Your task to perform on an android device: Go to wifi settings Image 0: 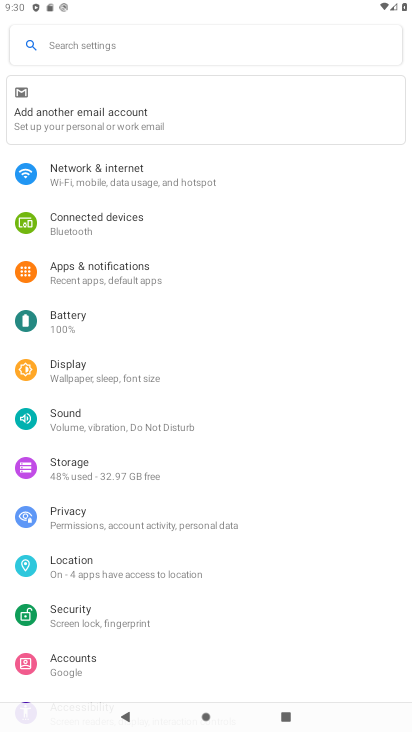
Step 0: click (131, 180)
Your task to perform on an android device: Go to wifi settings Image 1: 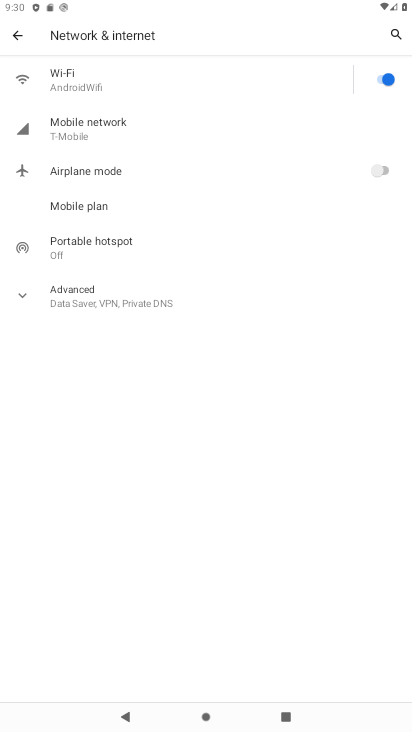
Step 1: click (176, 82)
Your task to perform on an android device: Go to wifi settings Image 2: 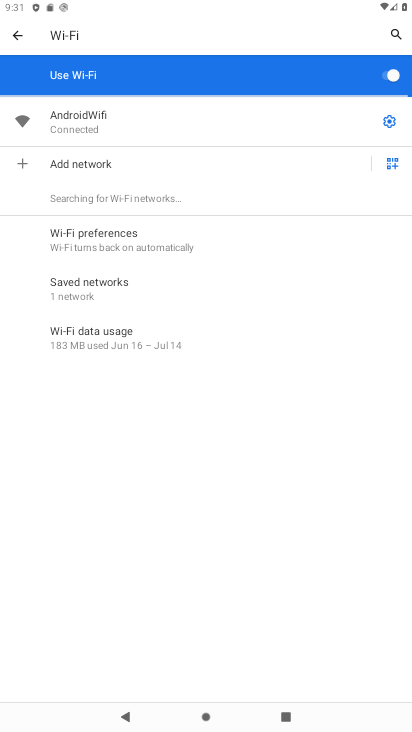
Step 2: click (389, 123)
Your task to perform on an android device: Go to wifi settings Image 3: 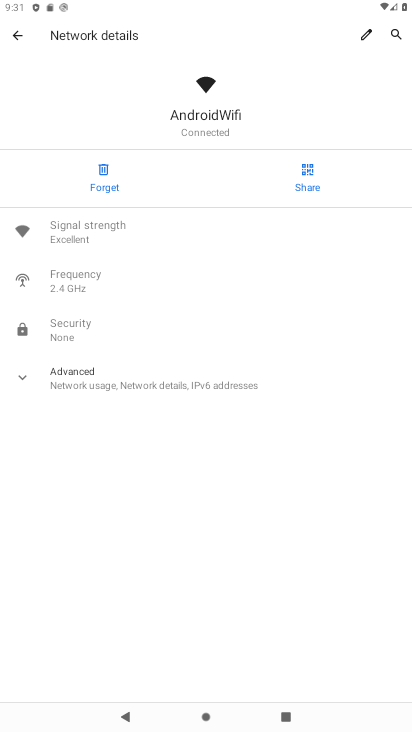
Step 3: task complete